Your task to perform on an android device: move an email to a new category in the gmail app Image 0: 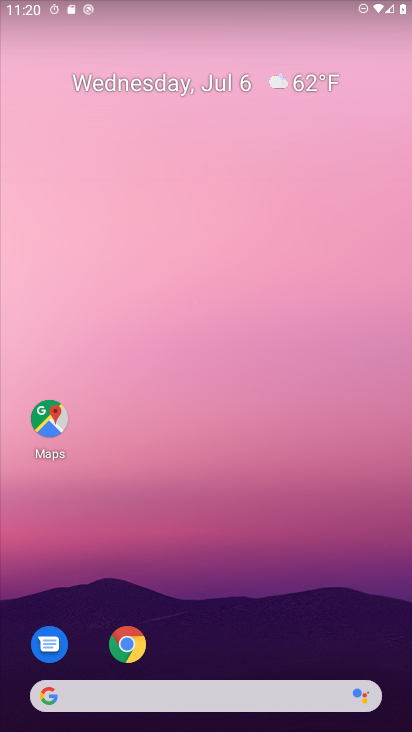
Step 0: press home button
Your task to perform on an android device: move an email to a new category in the gmail app Image 1: 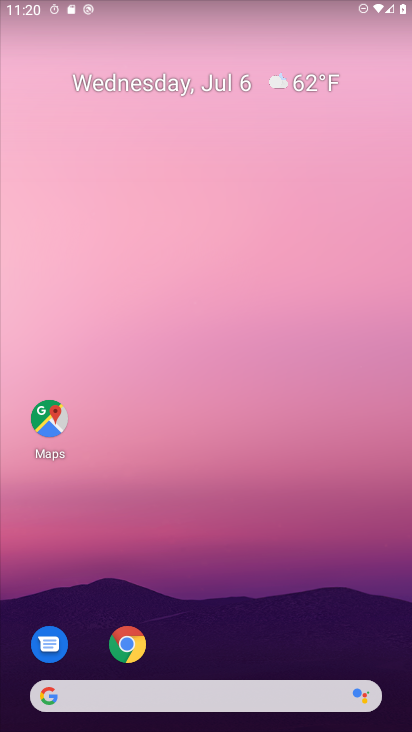
Step 1: drag from (242, 646) to (228, 134)
Your task to perform on an android device: move an email to a new category in the gmail app Image 2: 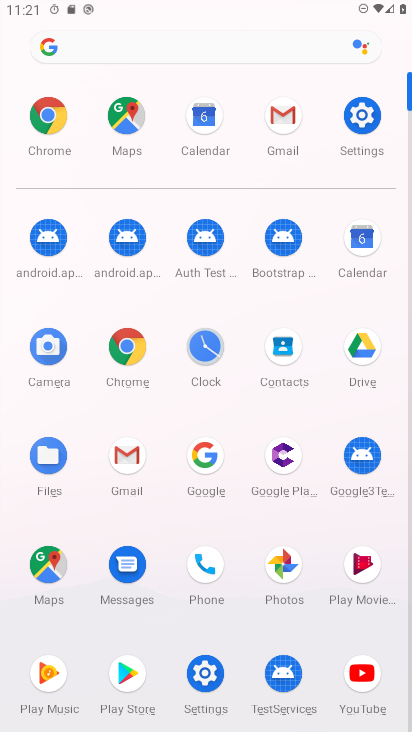
Step 2: click (281, 120)
Your task to perform on an android device: move an email to a new category in the gmail app Image 3: 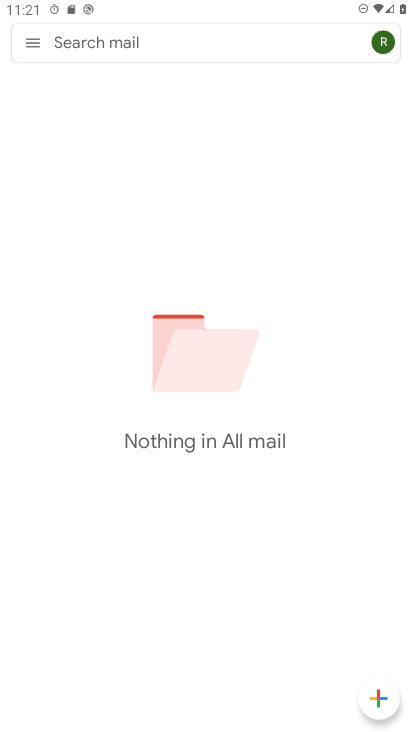
Step 3: click (28, 43)
Your task to perform on an android device: move an email to a new category in the gmail app Image 4: 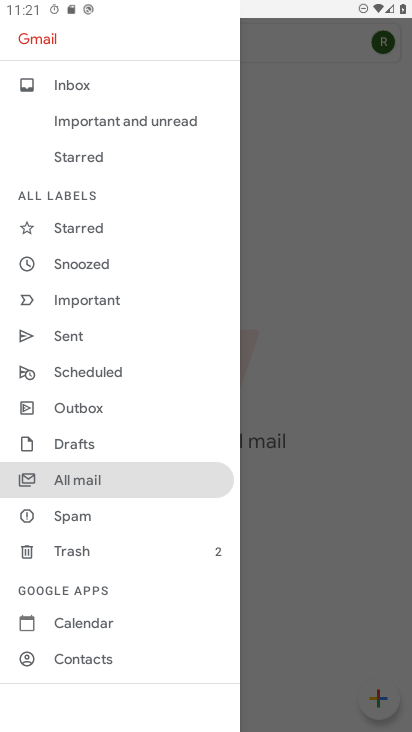
Step 4: click (88, 481)
Your task to perform on an android device: move an email to a new category in the gmail app Image 5: 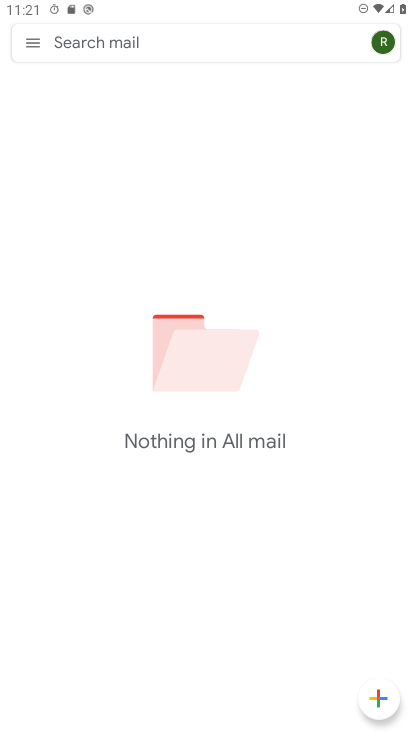
Step 5: task complete